Your task to perform on an android device: change timer sound Image 0: 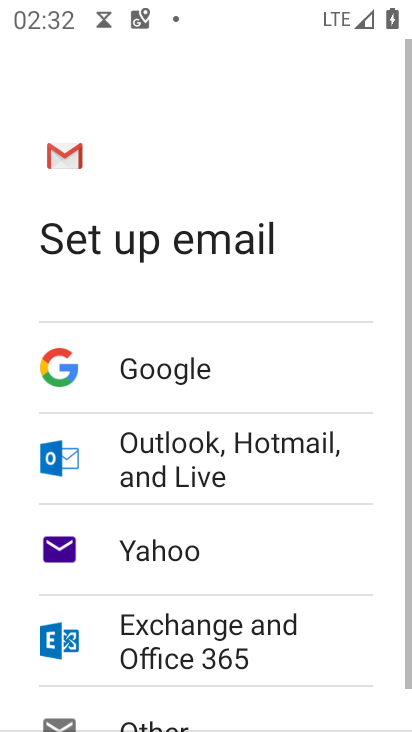
Step 0: press home button
Your task to perform on an android device: change timer sound Image 1: 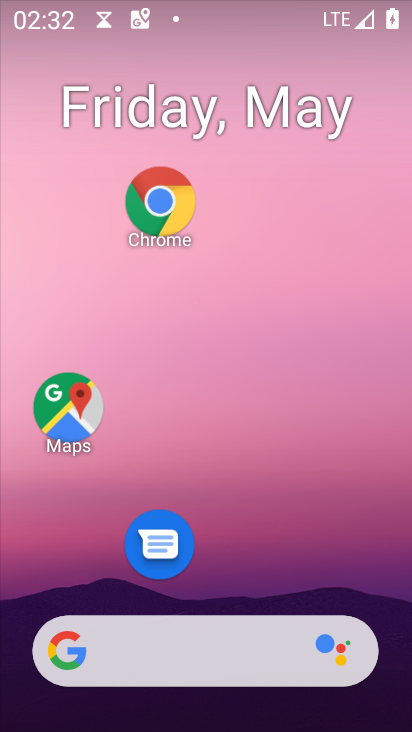
Step 1: drag from (305, 496) to (281, 173)
Your task to perform on an android device: change timer sound Image 2: 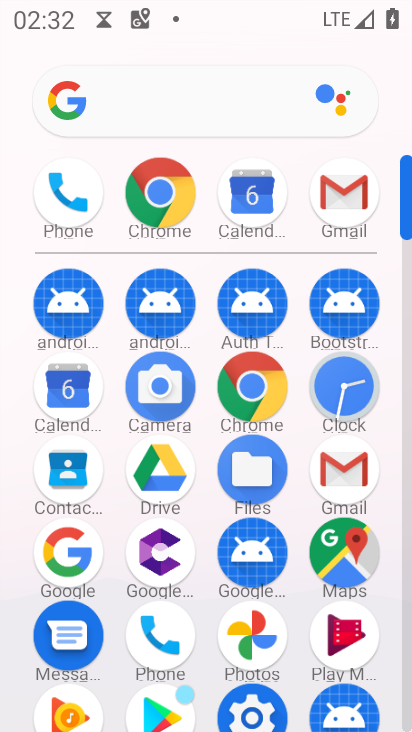
Step 2: click (329, 400)
Your task to perform on an android device: change timer sound Image 3: 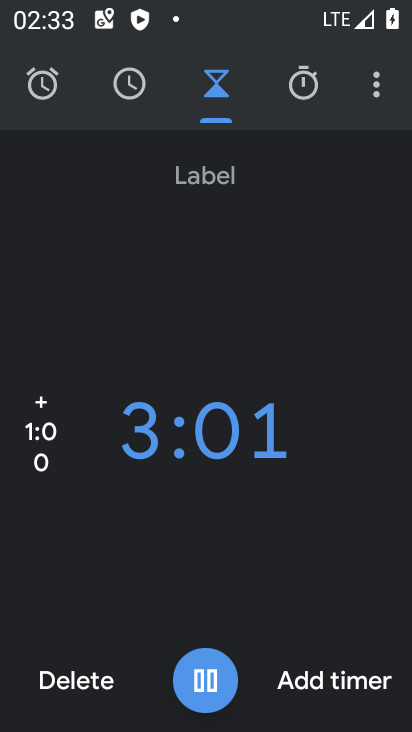
Step 3: click (390, 90)
Your task to perform on an android device: change timer sound Image 4: 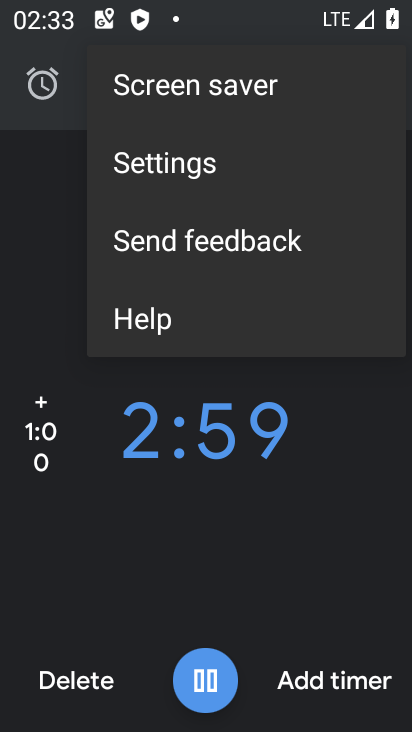
Step 4: click (224, 179)
Your task to perform on an android device: change timer sound Image 5: 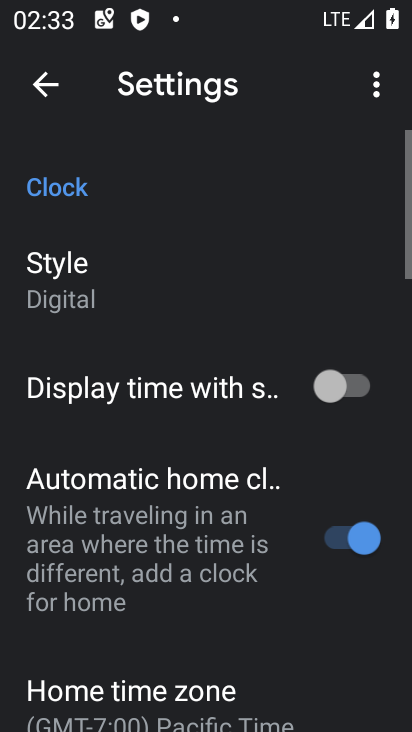
Step 5: drag from (140, 418) to (155, 132)
Your task to perform on an android device: change timer sound Image 6: 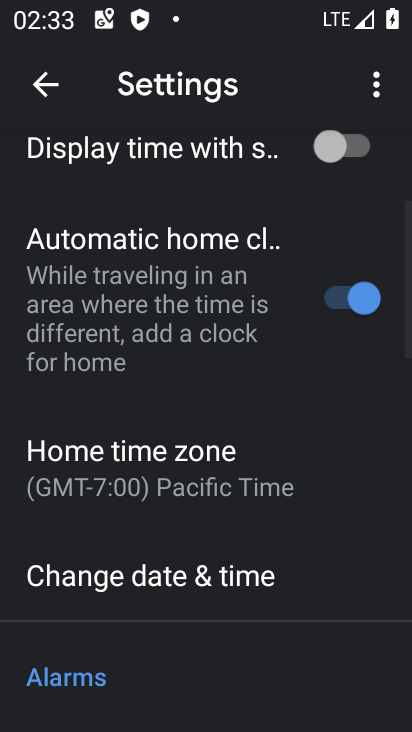
Step 6: drag from (158, 449) to (161, 224)
Your task to perform on an android device: change timer sound Image 7: 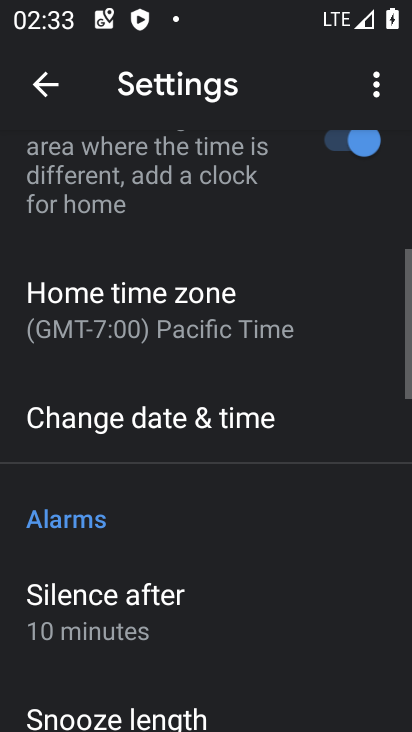
Step 7: drag from (169, 501) to (189, 144)
Your task to perform on an android device: change timer sound Image 8: 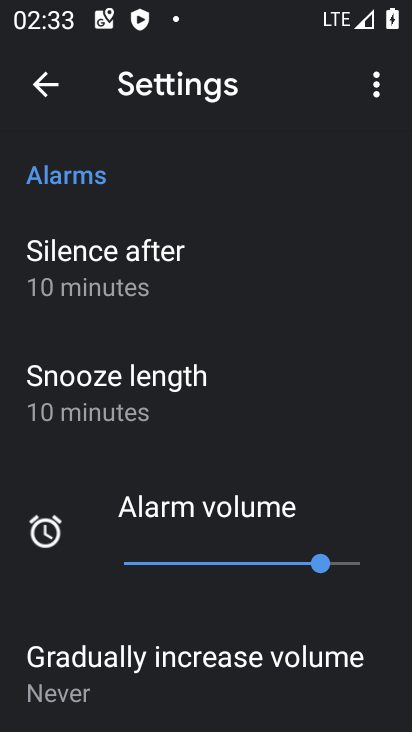
Step 8: drag from (205, 518) to (179, 193)
Your task to perform on an android device: change timer sound Image 9: 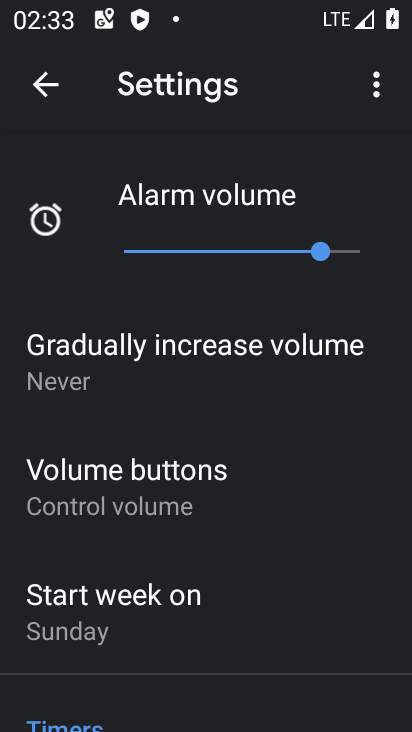
Step 9: drag from (199, 501) to (186, 226)
Your task to perform on an android device: change timer sound Image 10: 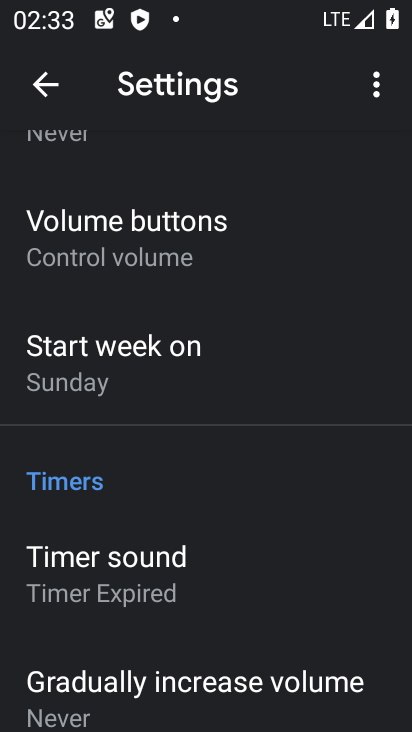
Step 10: click (222, 571)
Your task to perform on an android device: change timer sound Image 11: 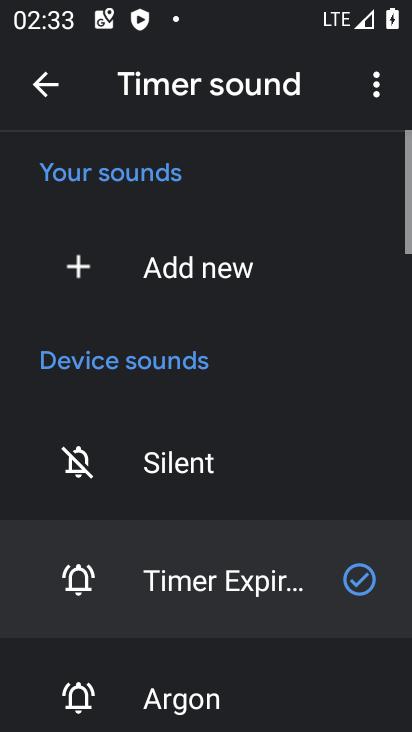
Step 11: click (184, 456)
Your task to perform on an android device: change timer sound Image 12: 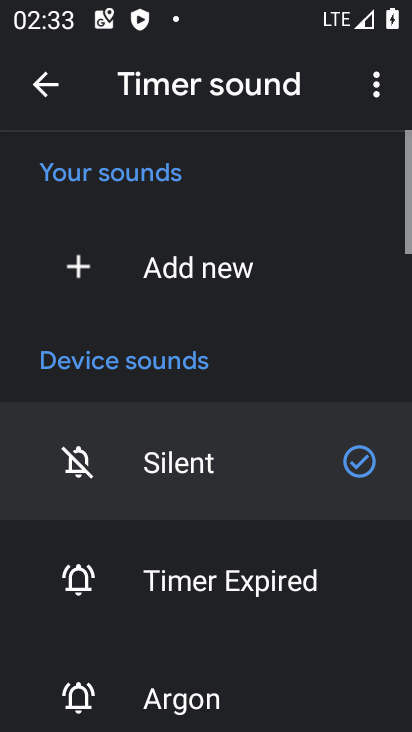
Step 12: task complete